Your task to perform on an android device: Open settings Image 0: 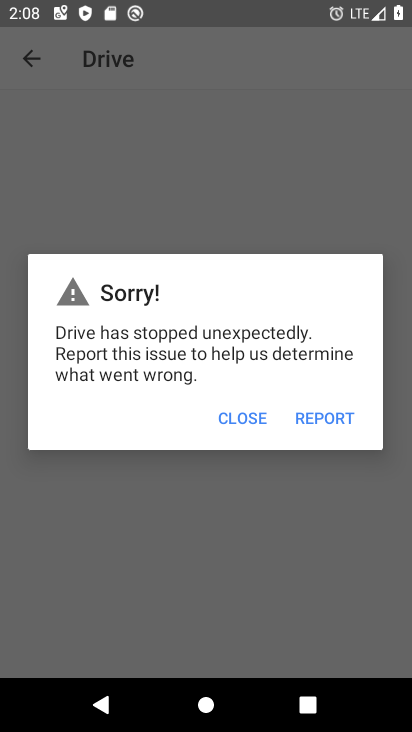
Step 0: press home button
Your task to perform on an android device: Open settings Image 1: 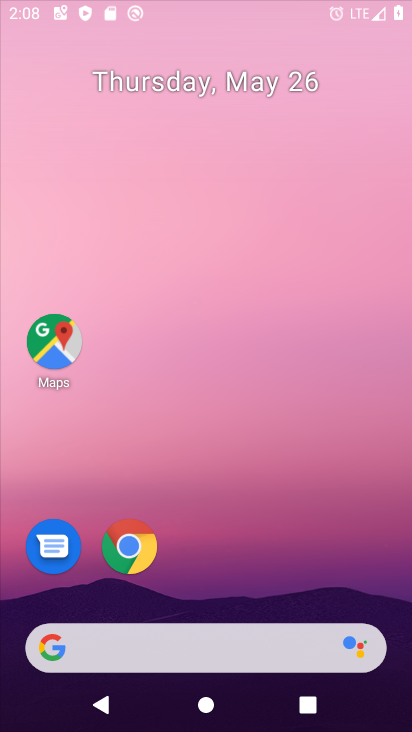
Step 1: drag from (260, 474) to (272, 79)
Your task to perform on an android device: Open settings Image 2: 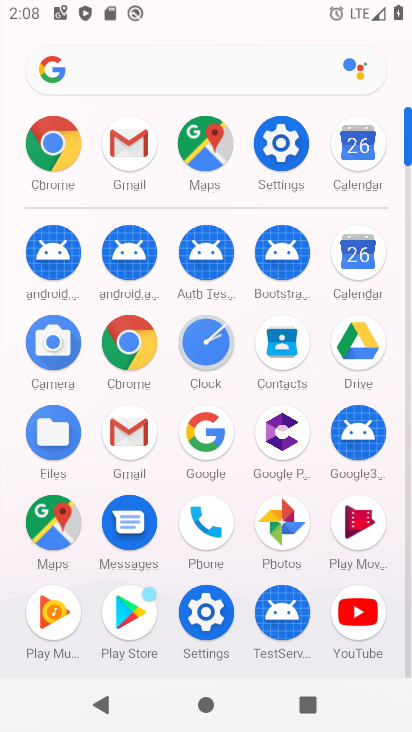
Step 2: click (281, 141)
Your task to perform on an android device: Open settings Image 3: 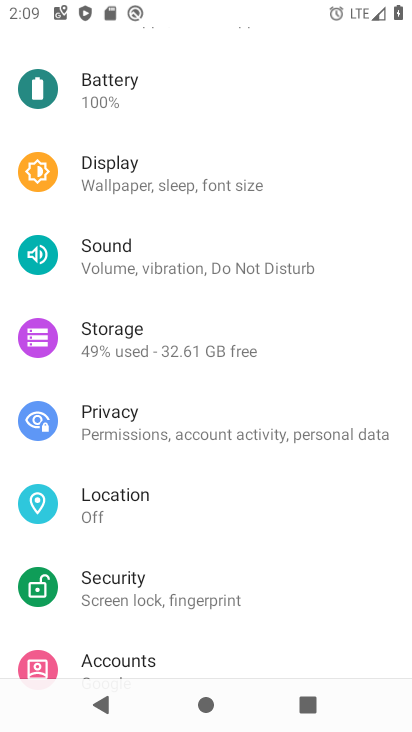
Step 3: task complete